Your task to perform on an android device: open sync settings in chrome Image 0: 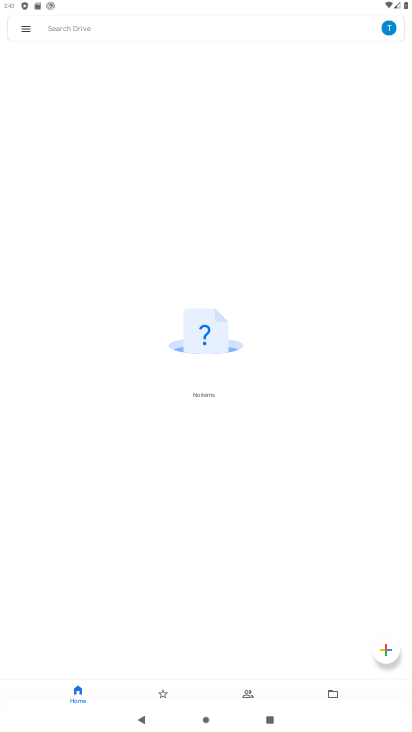
Step 0: press home button
Your task to perform on an android device: open sync settings in chrome Image 1: 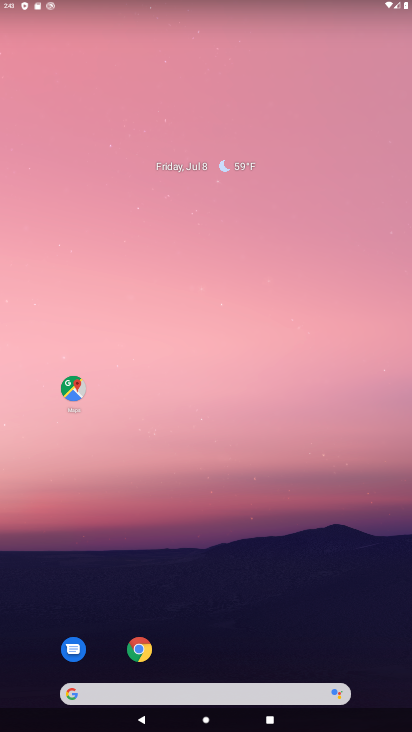
Step 1: drag from (305, 624) to (242, 266)
Your task to perform on an android device: open sync settings in chrome Image 2: 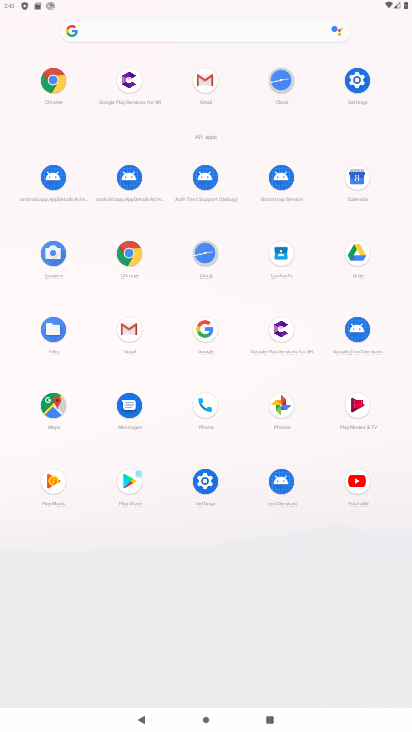
Step 2: click (133, 259)
Your task to perform on an android device: open sync settings in chrome Image 3: 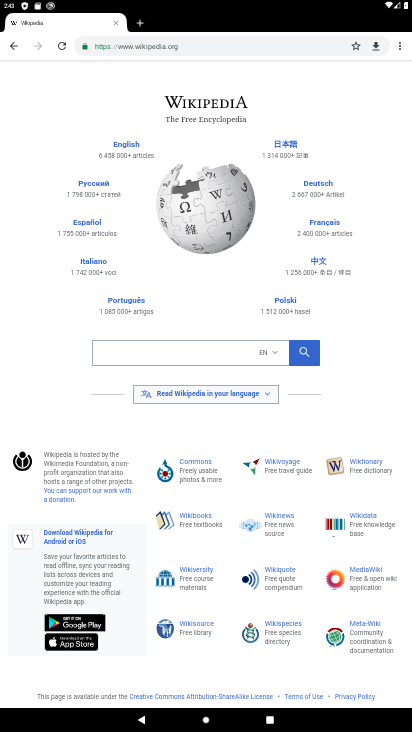
Step 3: click (400, 45)
Your task to perform on an android device: open sync settings in chrome Image 4: 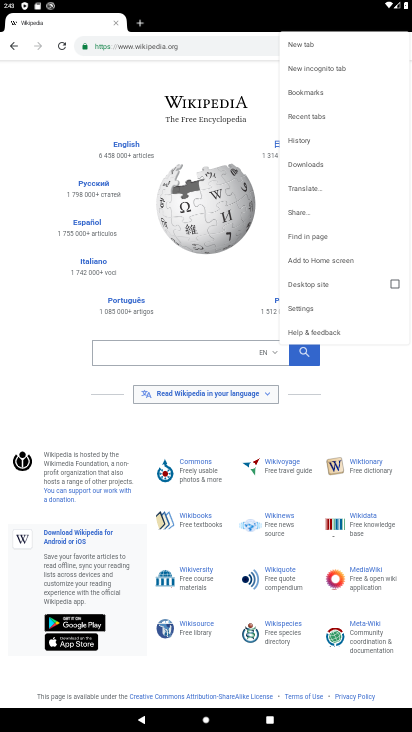
Step 4: click (315, 306)
Your task to perform on an android device: open sync settings in chrome Image 5: 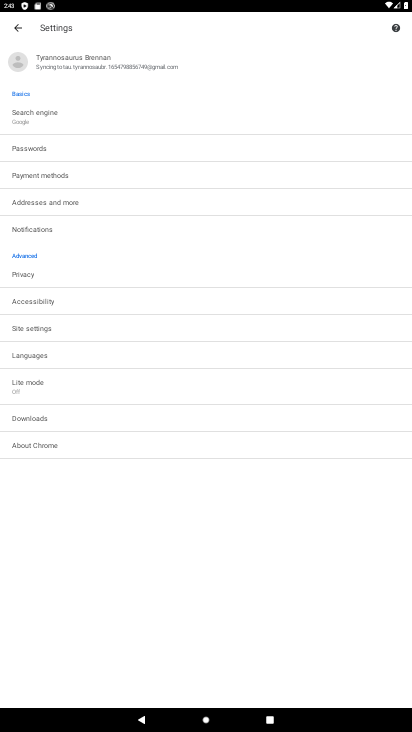
Step 5: click (81, 56)
Your task to perform on an android device: open sync settings in chrome Image 6: 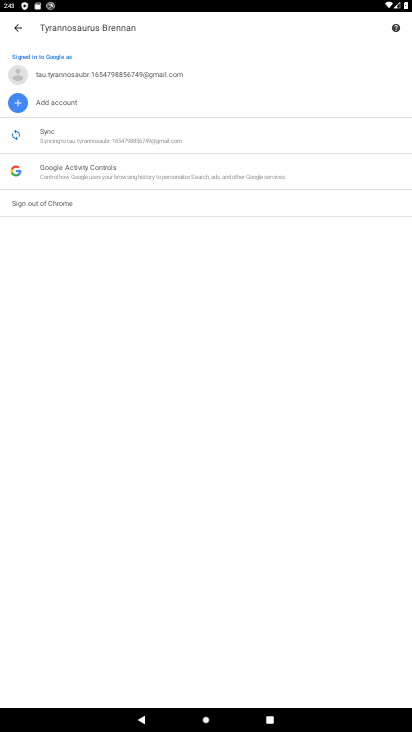
Step 6: click (58, 132)
Your task to perform on an android device: open sync settings in chrome Image 7: 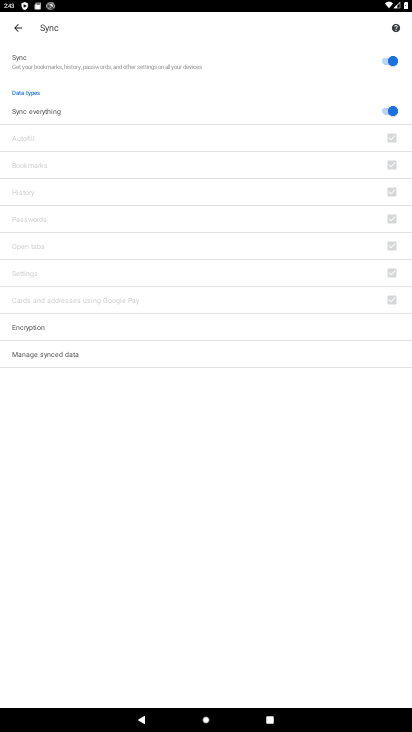
Step 7: task complete